Your task to perform on an android device: turn on sleep mode Image 0: 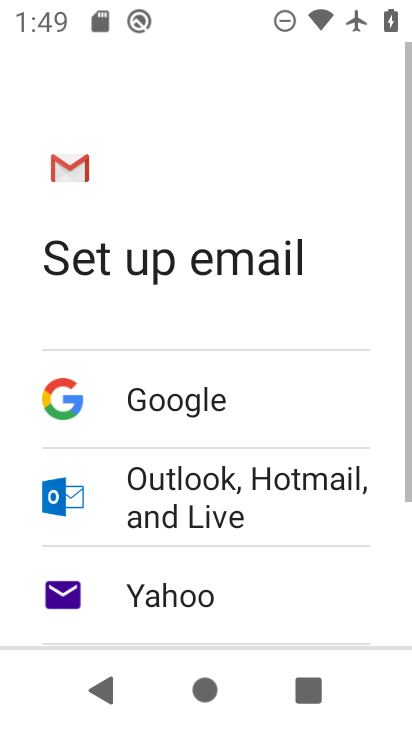
Step 0: press home button
Your task to perform on an android device: turn on sleep mode Image 1: 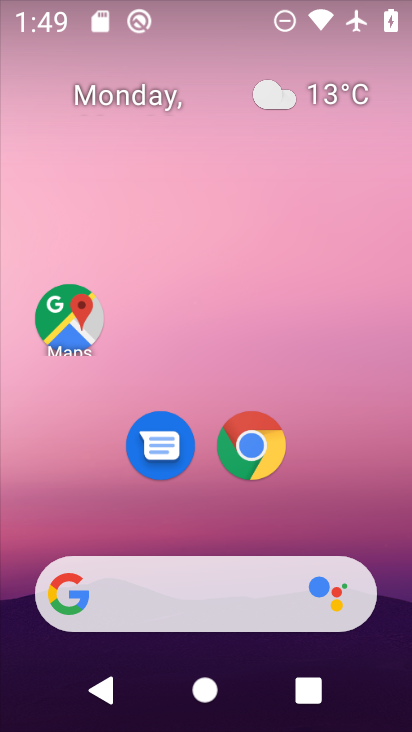
Step 1: drag from (393, 640) to (369, 105)
Your task to perform on an android device: turn on sleep mode Image 2: 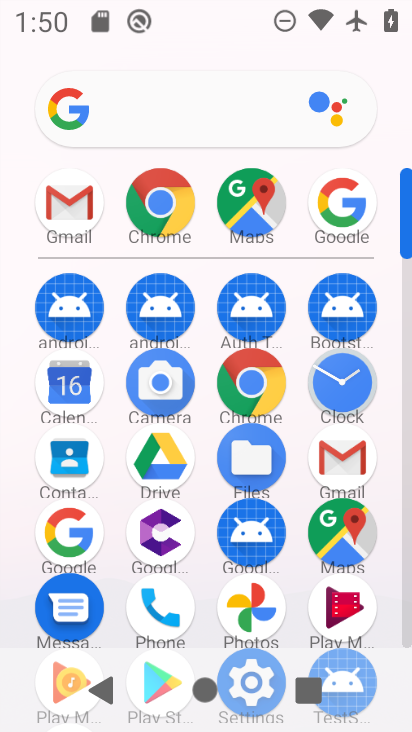
Step 2: drag from (295, 606) to (305, 271)
Your task to perform on an android device: turn on sleep mode Image 3: 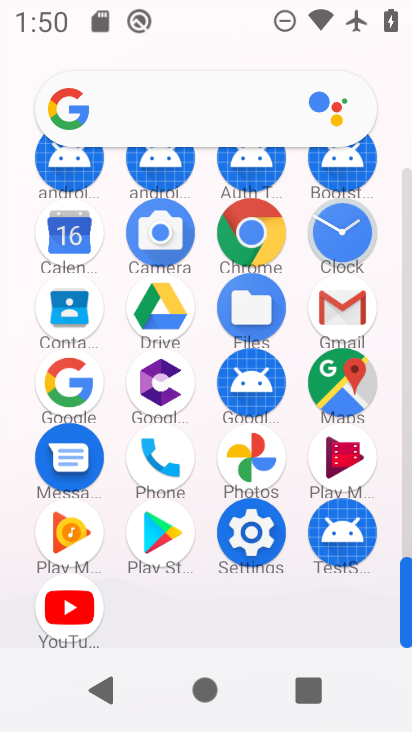
Step 3: click (253, 544)
Your task to perform on an android device: turn on sleep mode Image 4: 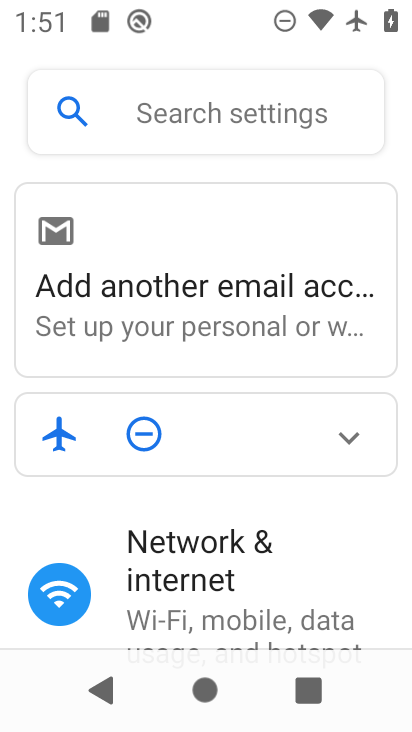
Step 4: task complete